Your task to perform on an android device: When is my next appointment? Image 0: 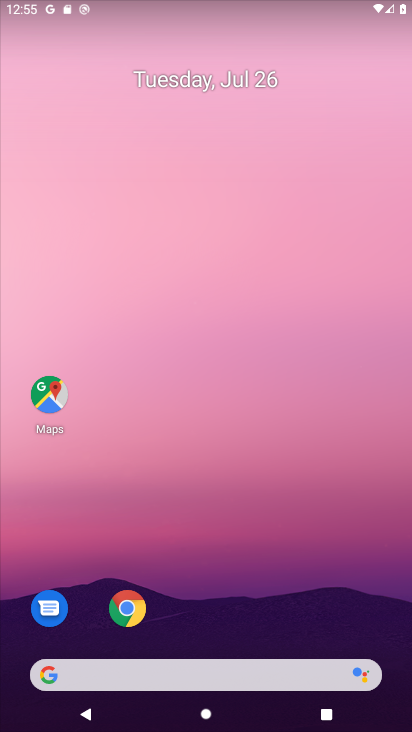
Step 0: click (183, 68)
Your task to perform on an android device: When is my next appointment? Image 1: 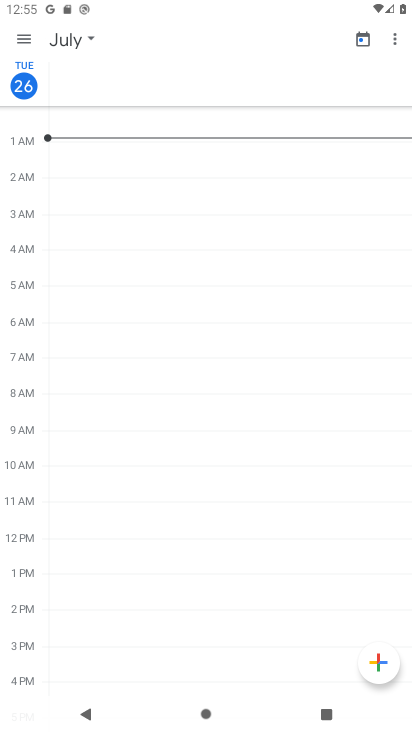
Step 1: task complete